Your task to perform on an android device: show emergency info Image 0: 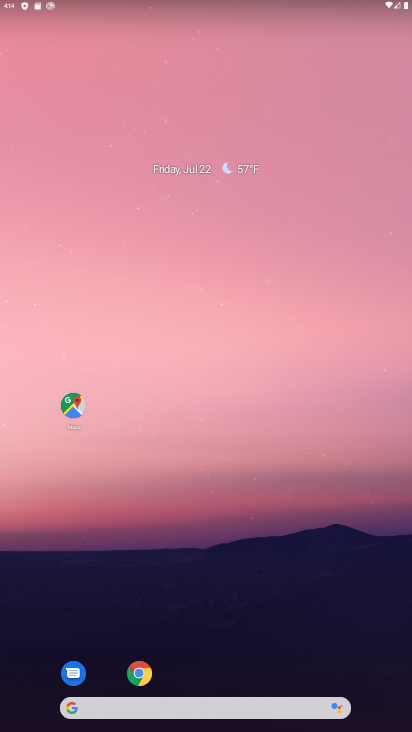
Step 0: drag from (289, 638) to (271, 270)
Your task to perform on an android device: show emergency info Image 1: 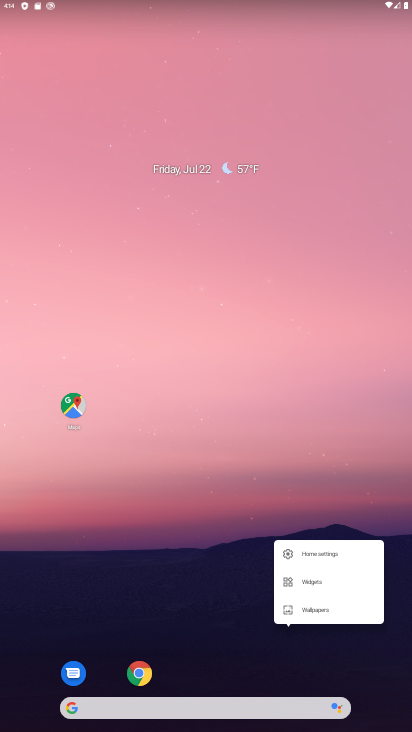
Step 1: click (287, 383)
Your task to perform on an android device: show emergency info Image 2: 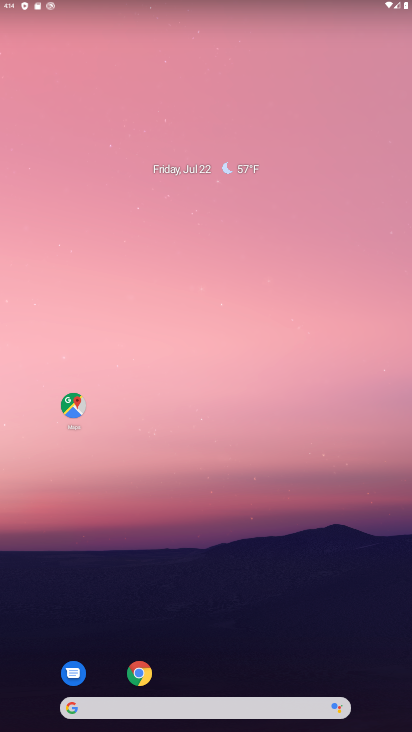
Step 2: click (267, 636)
Your task to perform on an android device: show emergency info Image 3: 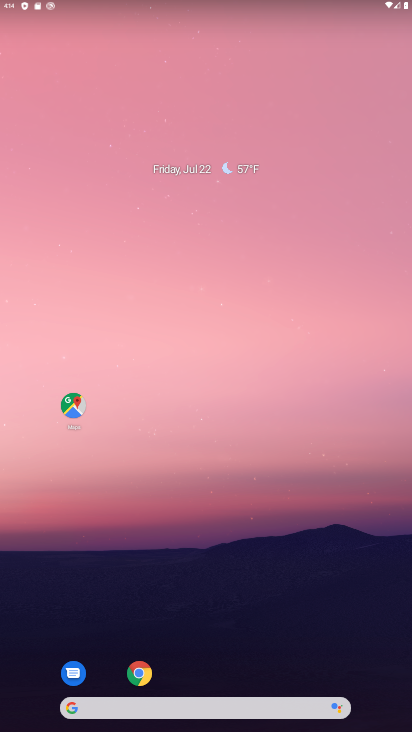
Step 3: drag from (267, 631) to (293, 208)
Your task to perform on an android device: show emergency info Image 4: 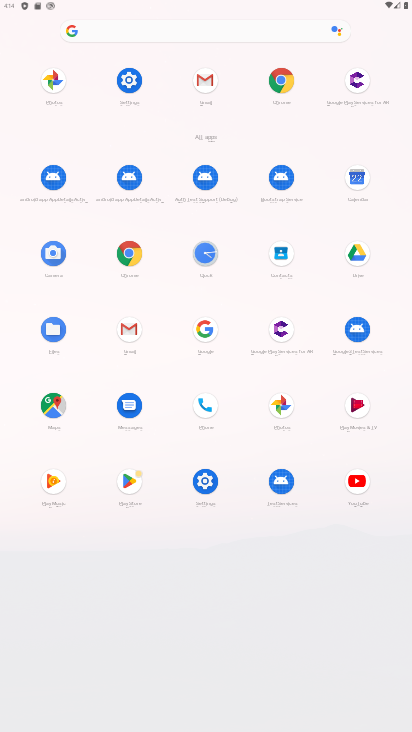
Step 4: click (211, 486)
Your task to perform on an android device: show emergency info Image 5: 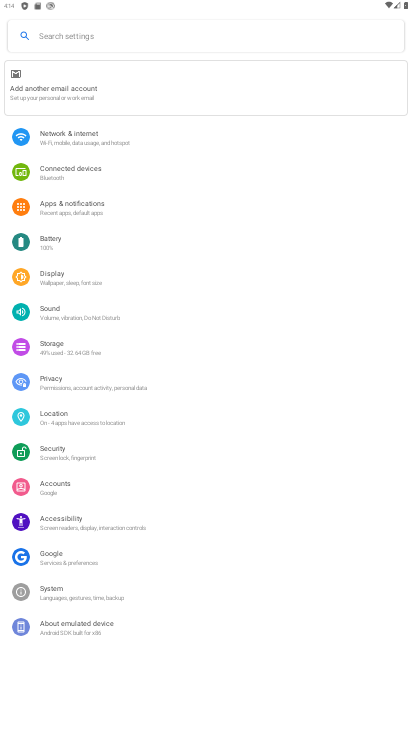
Step 5: click (120, 622)
Your task to perform on an android device: show emergency info Image 6: 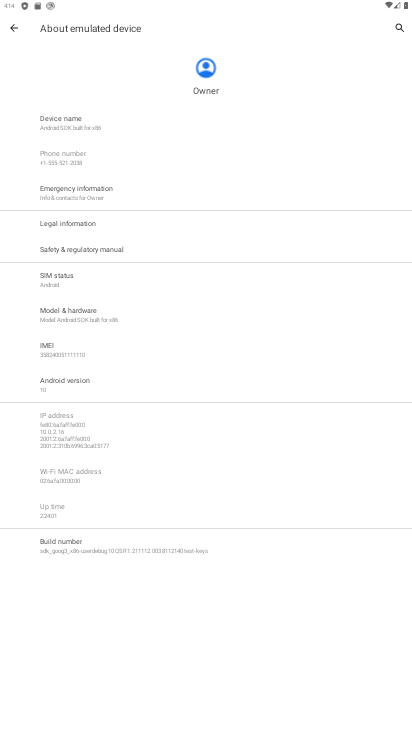
Step 6: click (117, 192)
Your task to perform on an android device: show emergency info Image 7: 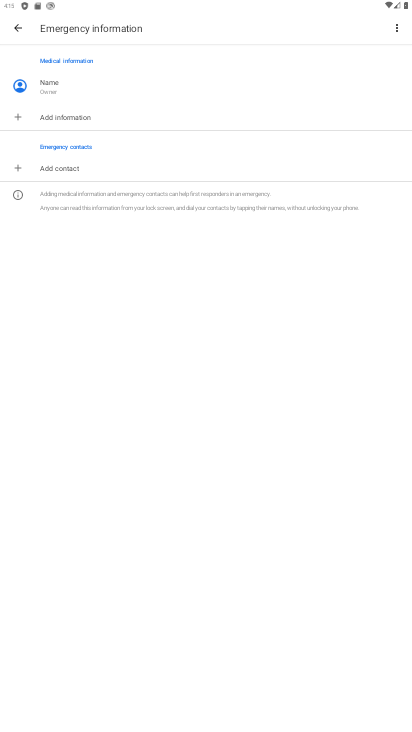
Step 7: task complete